Your task to perform on an android device: turn off location Image 0: 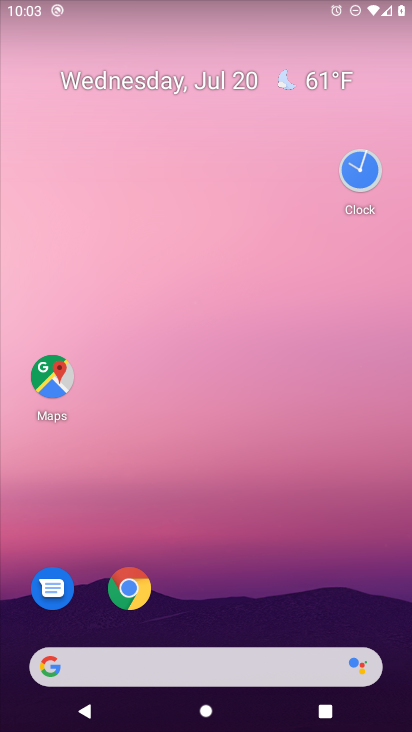
Step 0: drag from (30, 702) to (186, 193)
Your task to perform on an android device: turn off location Image 1: 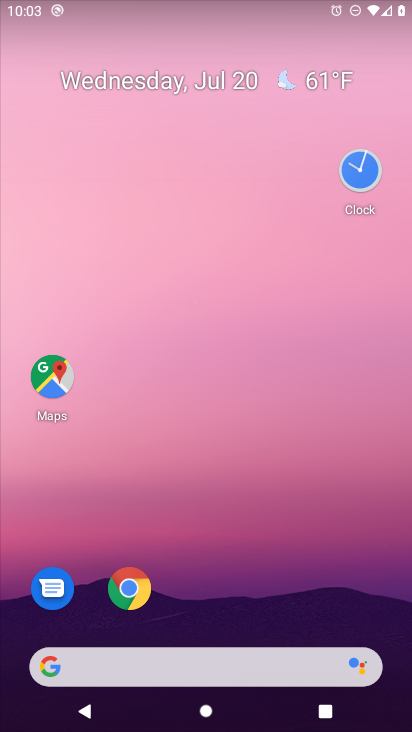
Step 1: drag from (10, 696) to (168, 76)
Your task to perform on an android device: turn off location Image 2: 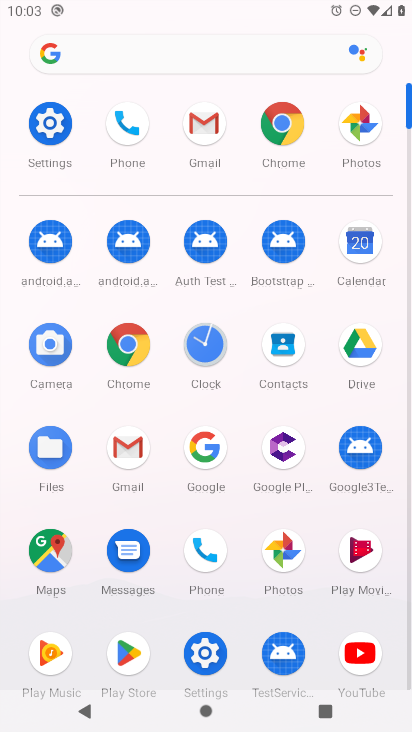
Step 2: click (200, 663)
Your task to perform on an android device: turn off location Image 3: 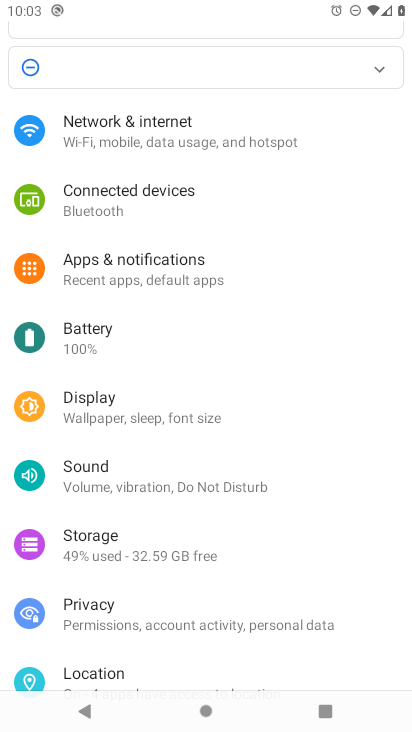
Step 3: click (103, 662)
Your task to perform on an android device: turn off location Image 4: 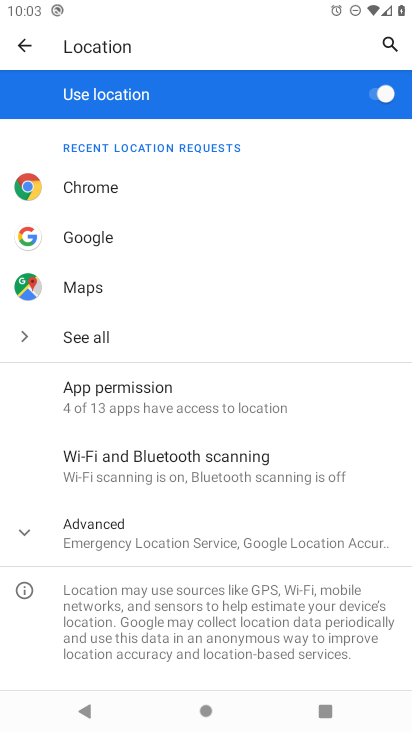
Step 4: click (96, 532)
Your task to perform on an android device: turn off location Image 5: 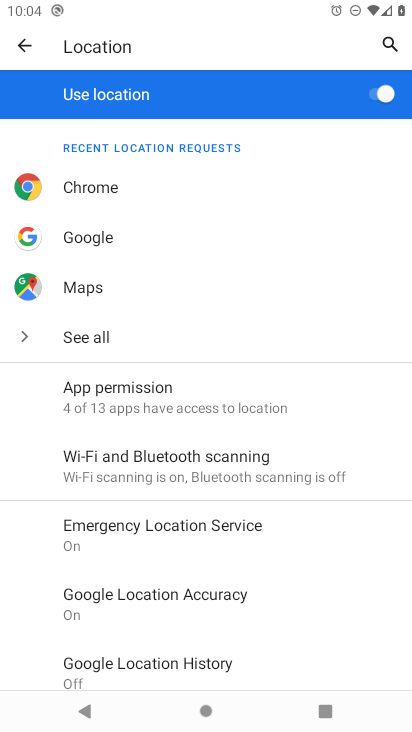
Step 5: click (379, 91)
Your task to perform on an android device: turn off location Image 6: 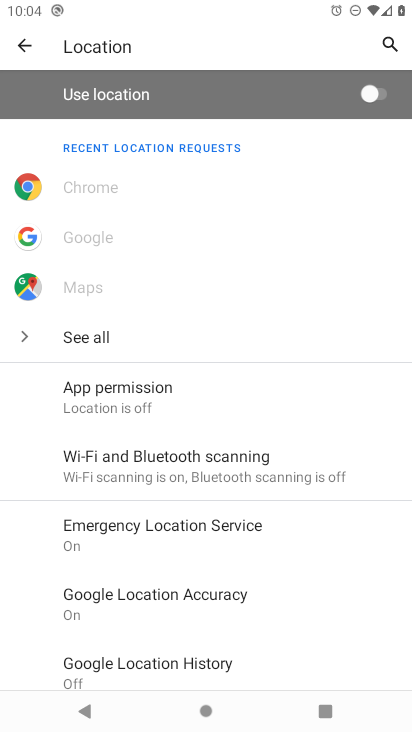
Step 6: task complete